Your task to perform on an android device: What is the news today? Image 0: 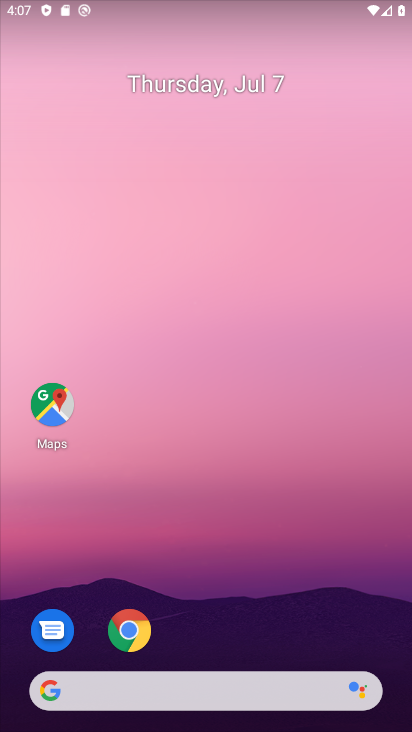
Step 0: click (42, 688)
Your task to perform on an android device: What is the news today? Image 1: 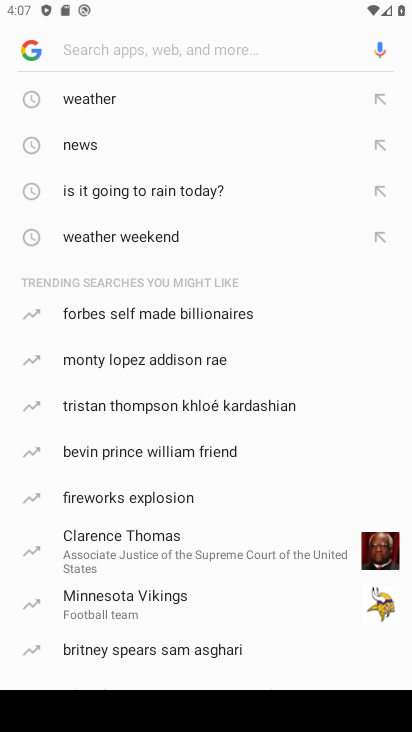
Step 1: click (28, 38)
Your task to perform on an android device: What is the news today? Image 2: 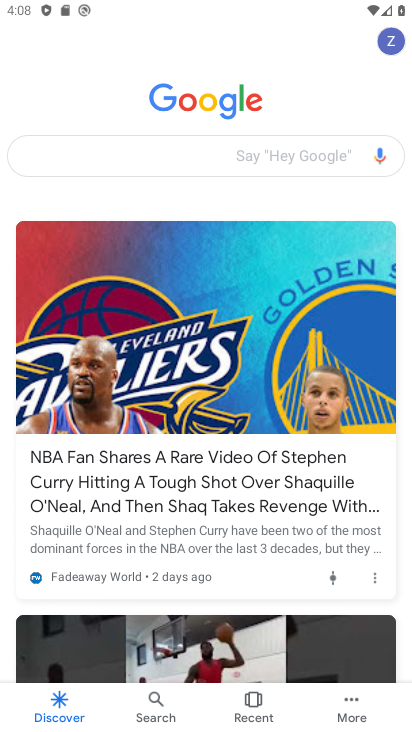
Step 2: task complete